Your task to perform on an android device: Do I have any events this weekend? Image 0: 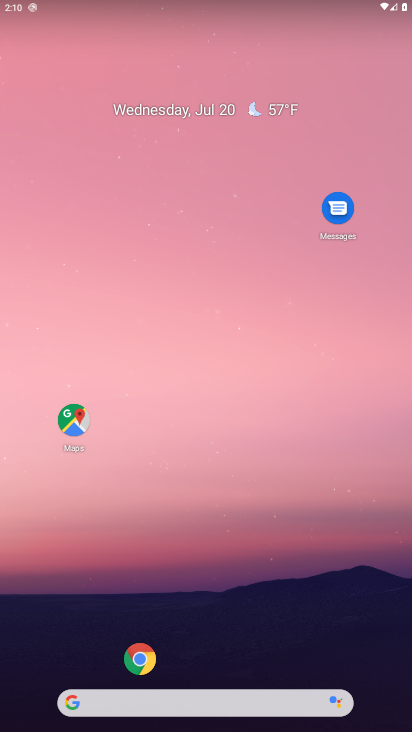
Step 0: click (93, 705)
Your task to perform on an android device: Do I have any events this weekend? Image 1: 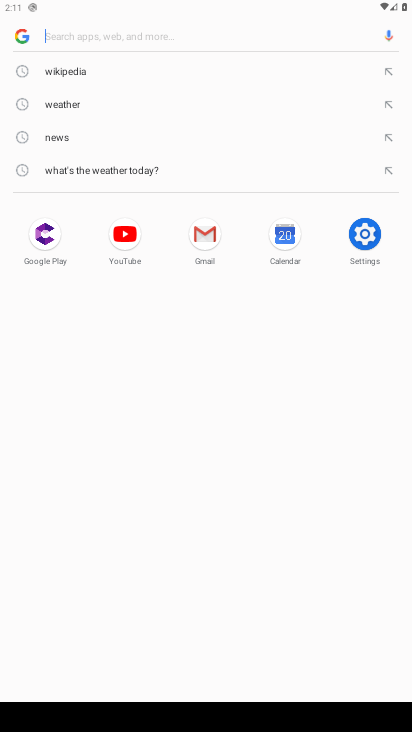
Step 1: click (74, 47)
Your task to perform on an android device: Do I have any events this weekend? Image 2: 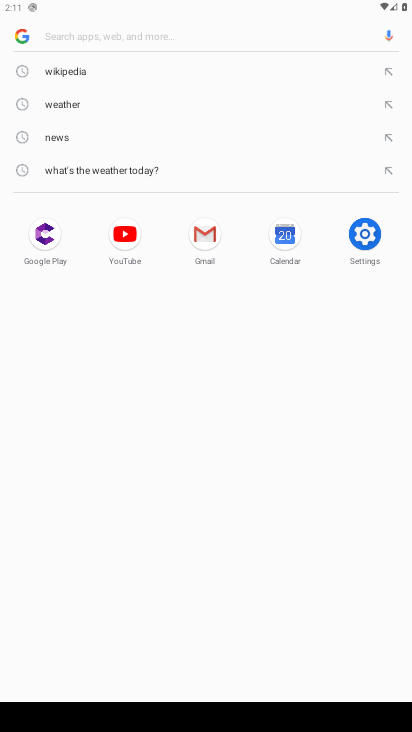
Step 2: type "Do I have any events this weekend?"
Your task to perform on an android device: Do I have any events this weekend? Image 3: 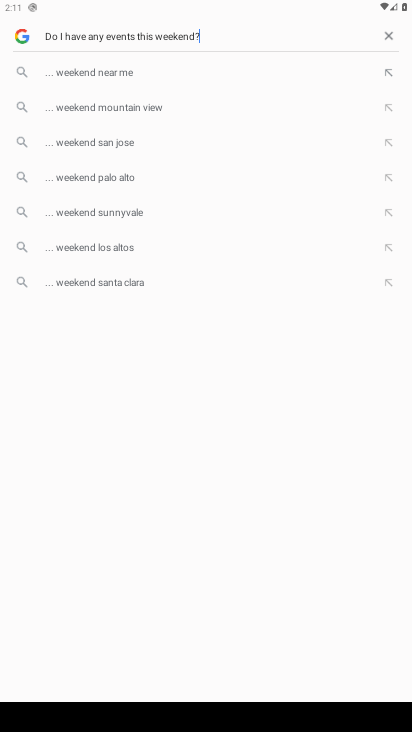
Step 3: type ""
Your task to perform on an android device: Do I have any events this weekend? Image 4: 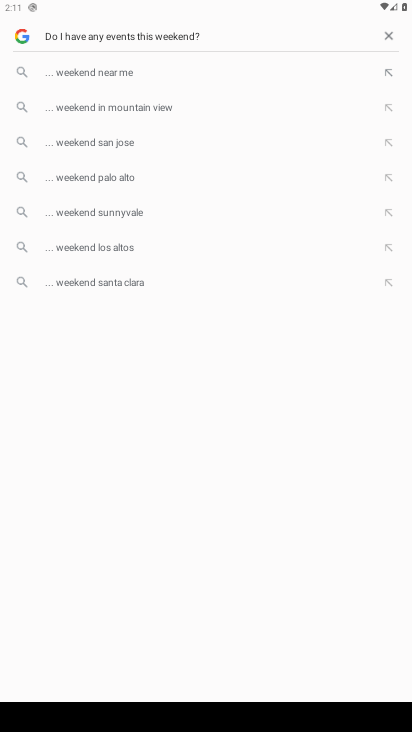
Step 4: type ""
Your task to perform on an android device: Do I have any events this weekend? Image 5: 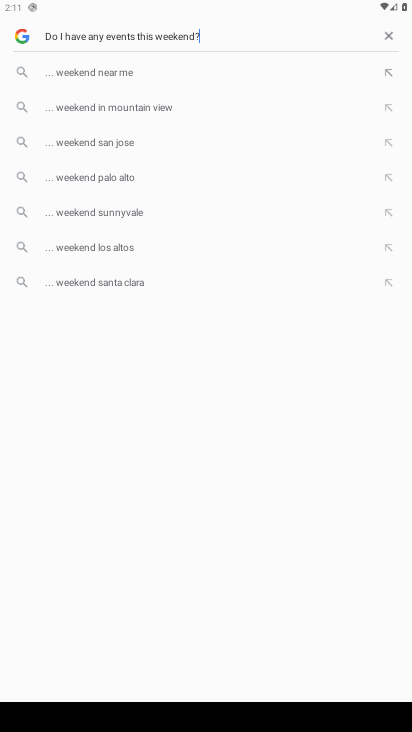
Step 5: type ""
Your task to perform on an android device: Do I have any events this weekend? Image 6: 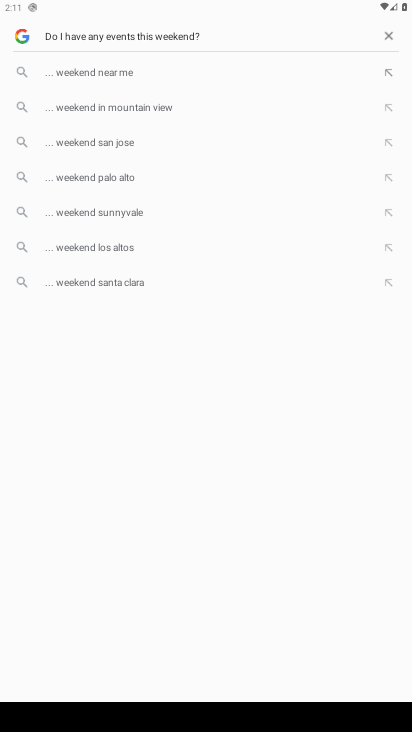
Step 6: task complete